Your task to perform on an android device: Open calendar and show me the first week of next month Image 0: 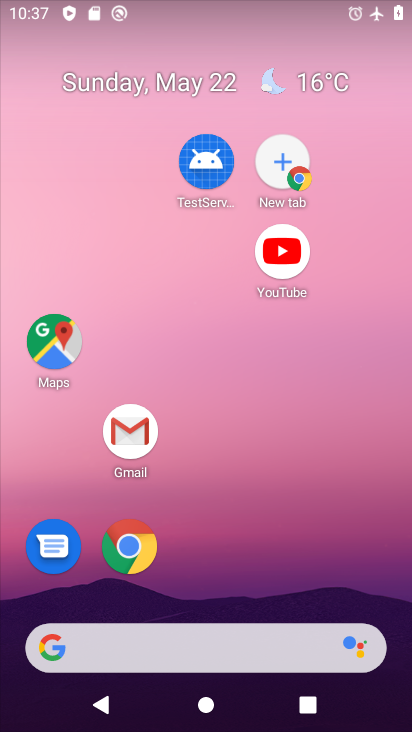
Step 0: drag from (340, 702) to (136, 90)
Your task to perform on an android device: Open calendar and show me the first week of next month Image 1: 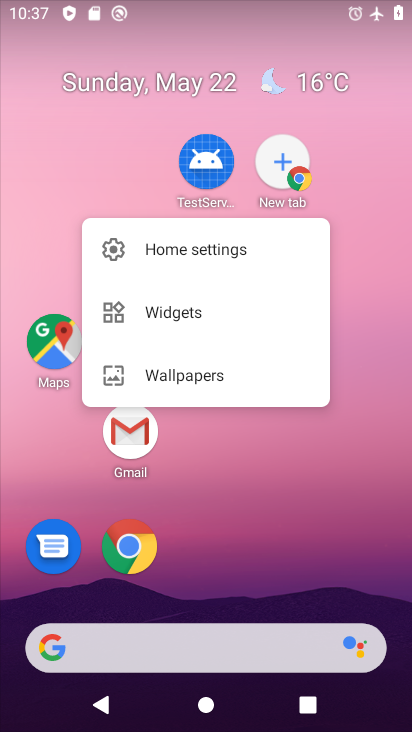
Step 1: drag from (337, 584) to (191, 4)
Your task to perform on an android device: Open calendar and show me the first week of next month Image 2: 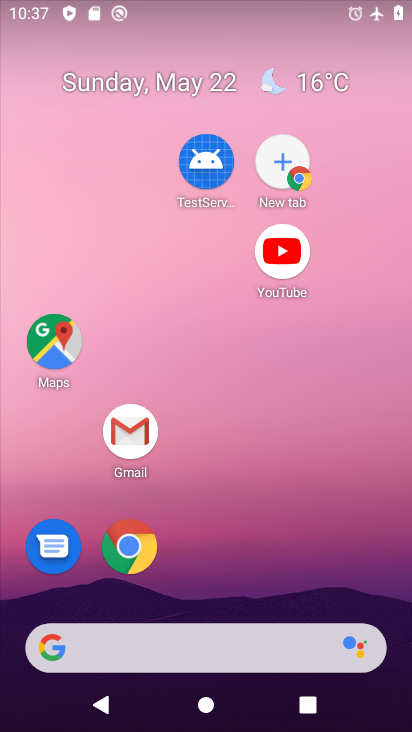
Step 2: drag from (251, 249) to (195, 16)
Your task to perform on an android device: Open calendar and show me the first week of next month Image 3: 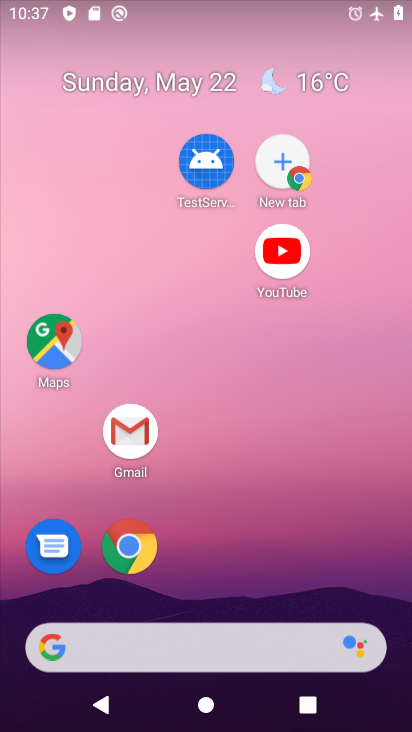
Step 3: drag from (255, 545) to (98, 3)
Your task to perform on an android device: Open calendar and show me the first week of next month Image 4: 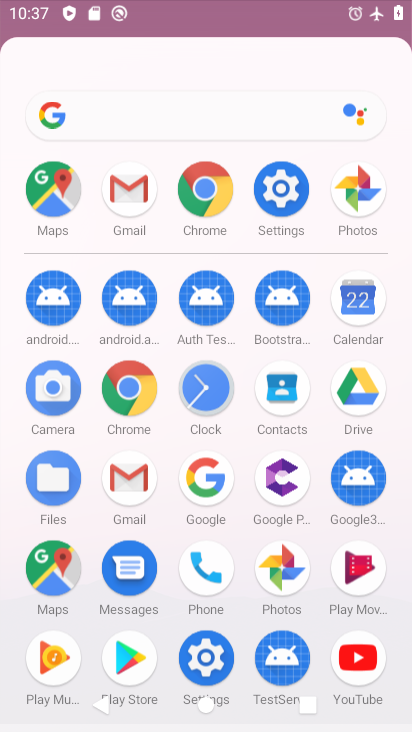
Step 4: drag from (253, 445) to (135, 1)
Your task to perform on an android device: Open calendar and show me the first week of next month Image 5: 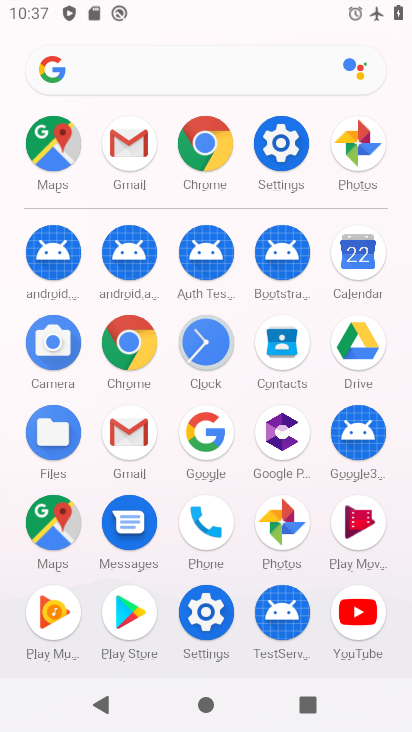
Step 5: click (281, 135)
Your task to perform on an android device: Open calendar and show me the first week of next month Image 6: 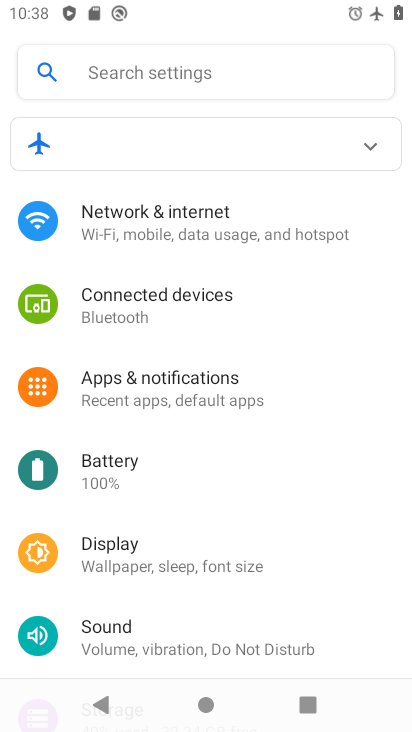
Step 6: click (162, 223)
Your task to perform on an android device: Open calendar and show me the first week of next month Image 7: 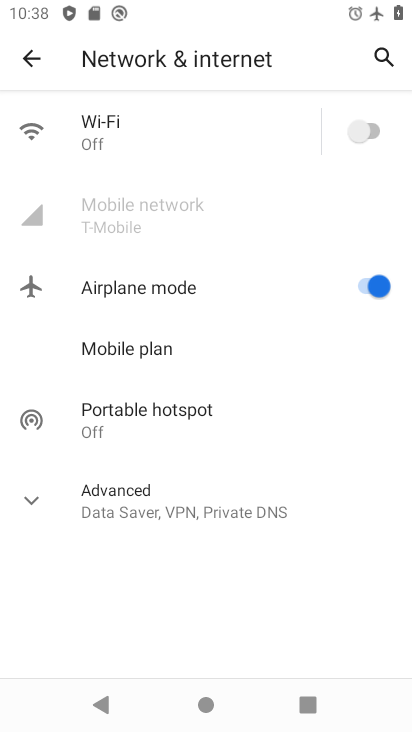
Step 7: click (381, 278)
Your task to perform on an android device: Open calendar and show me the first week of next month Image 8: 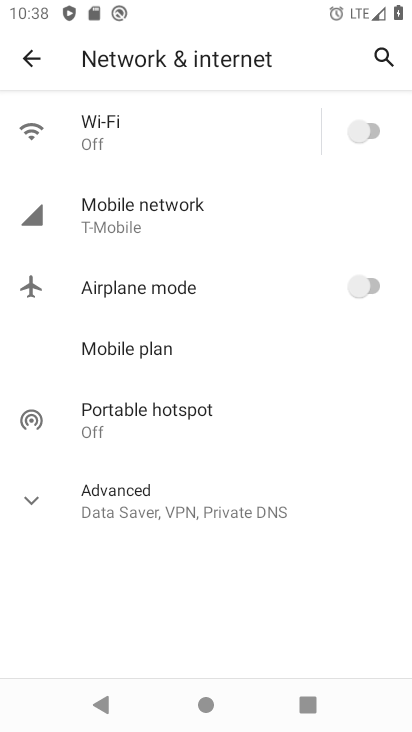
Step 8: click (358, 120)
Your task to perform on an android device: Open calendar and show me the first week of next month Image 9: 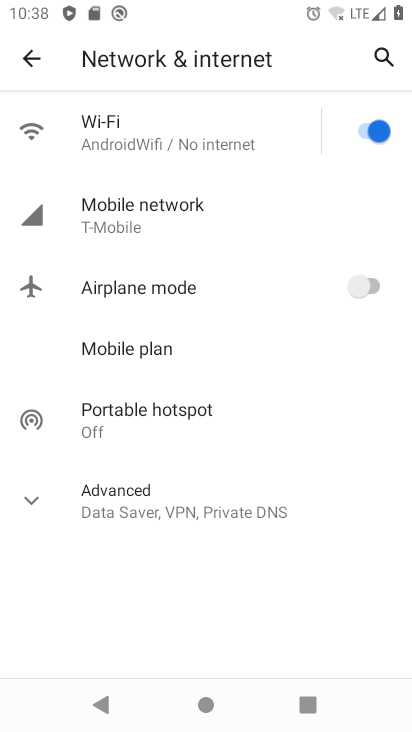
Step 9: press back button
Your task to perform on an android device: Open calendar and show me the first week of next month Image 10: 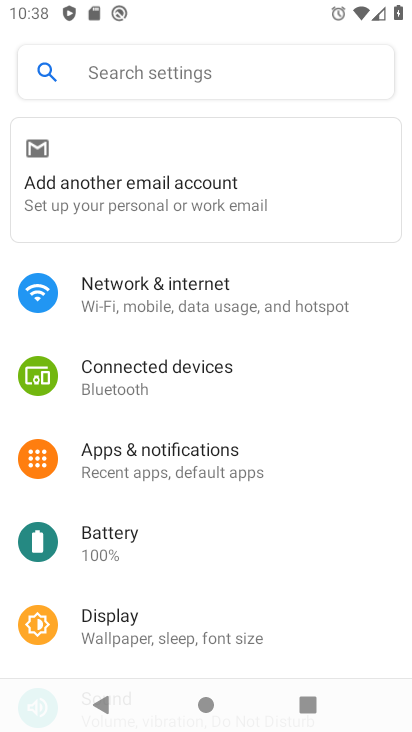
Step 10: press home button
Your task to perform on an android device: Open calendar and show me the first week of next month Image 11: 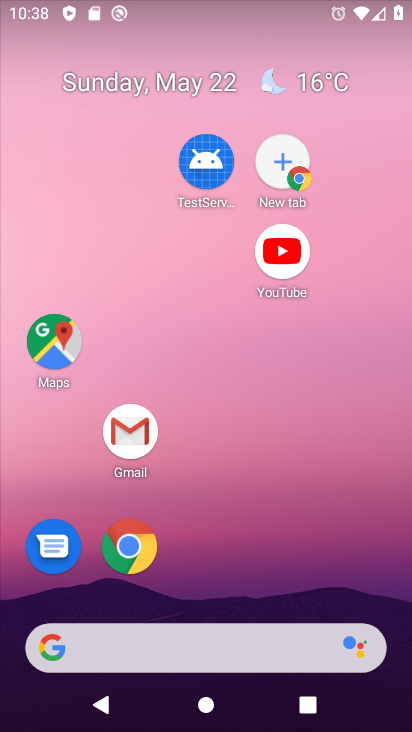
Step 11: drag from (224, 540) to (166, 116)
Your task to perform on an android device: Open calendar and show me the first week of next month Image 12: 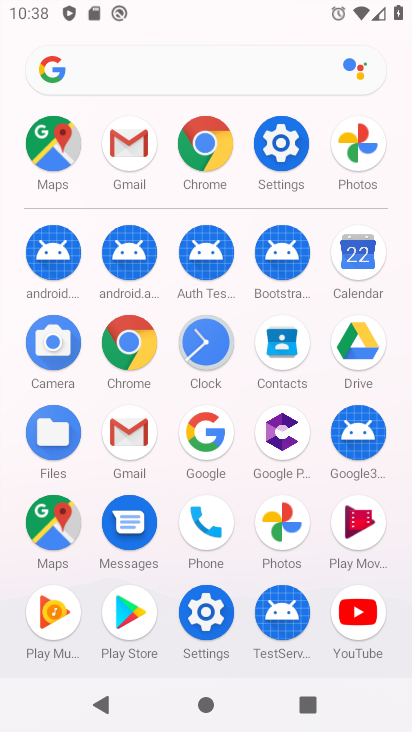
Step 12: click (352, 247)
Your task to perform on an android device: Open calendar and show me the first week of next month Image 13: 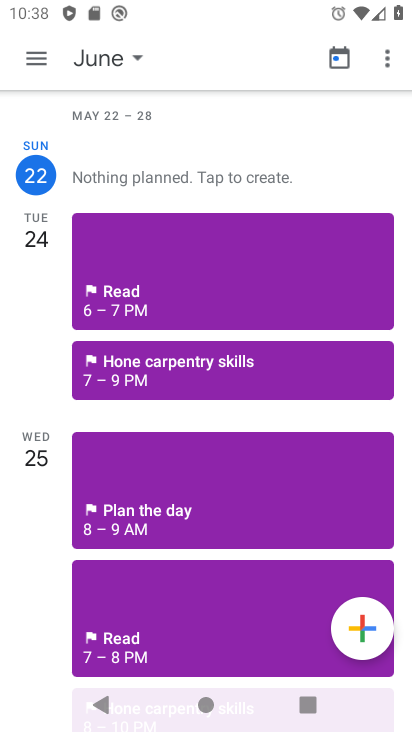
Step 13: click (133, 56)
Your task to perform on an android device: Open calendar and show me the first week of next month Image 14: 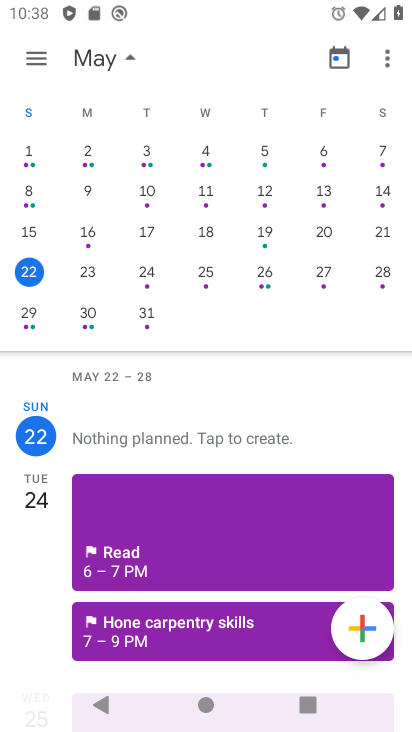
Step 14: drag from (242, 214) to (17, 386)
Your task to perform on an android device: Open calendar and show me the first week of next month Image 15: 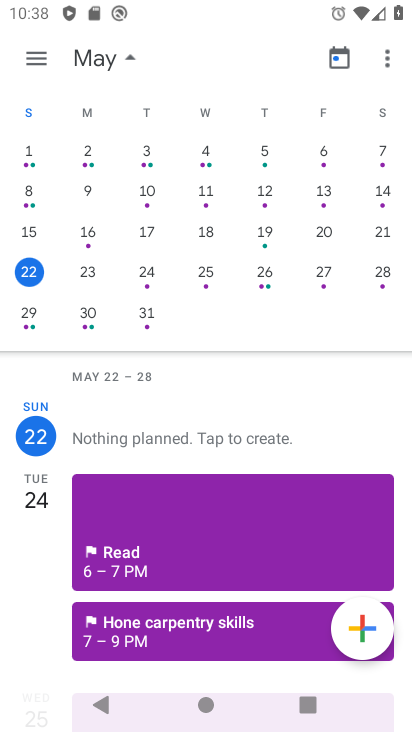
Step 15: drag from (225, 197) to (7, 287)
Your task to perform on an android device: Open calendar and show me the first week of next month Image 16: 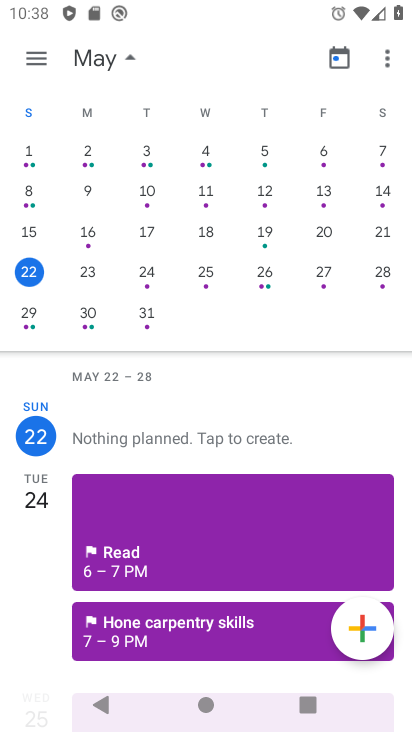
Step 16: drag from (217, 201) to (23, 278)
Your task to perform on an android device: Open calendar and show me the first week of next month Image 17: 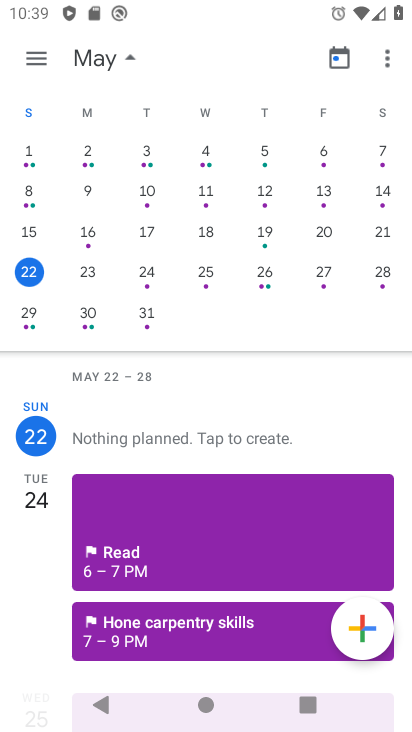
Step 17: drag from (238, 202) to (36, 300)
Your task to perform on an android device: Open calendar and show me the first week of next month Image 18: 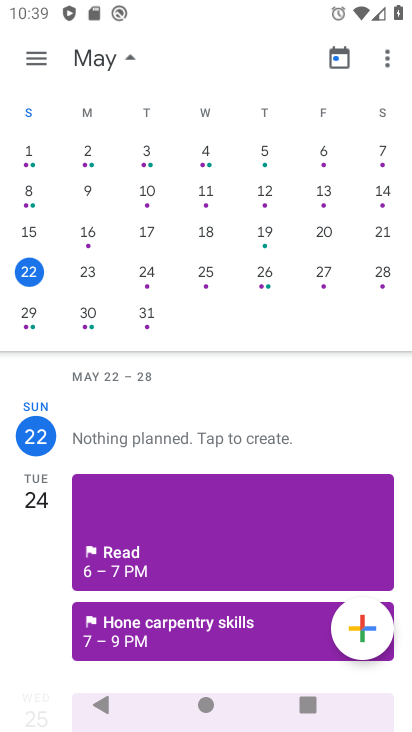
Step 18: click (84, 270)
Your task to perform on an android device: Open calendar and show me the first week of next month Image 19: 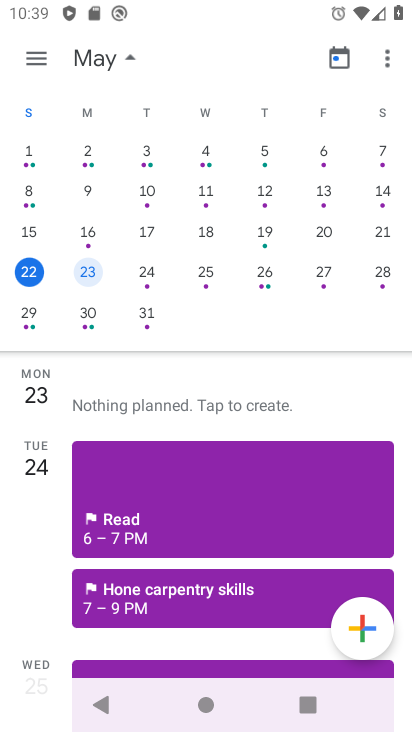
Step 19: task complete